Your task to perform on an android device: What's the weather going to be tomorrow? Image 0: 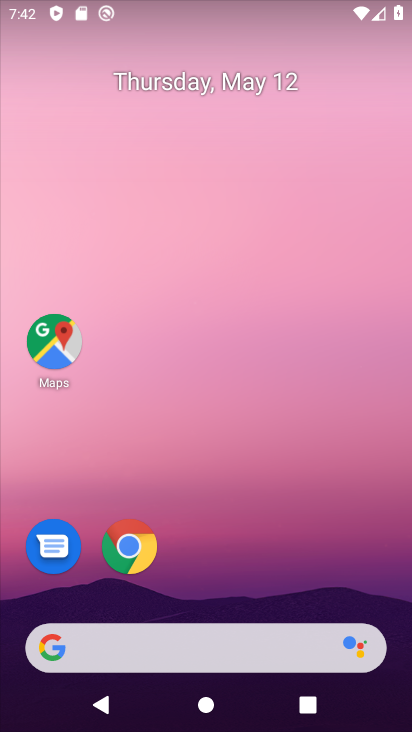
Step 0: drag from (200, 574) to (255, 89)
Your task to perform on an android device: What's the weather going to be tomorrow? Image 1: 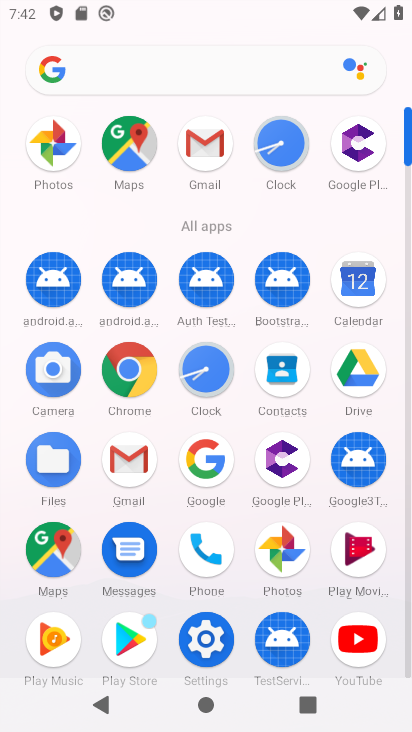
Step 1: click (133, 65)
Your task to perform on an android device: What's the weather going to be tomorrow? Image 2: 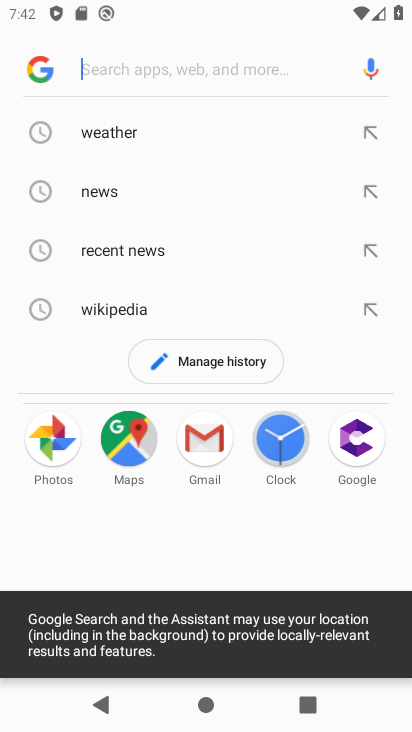
Step 2: click (110, 136)
Your task to perform on an android device: What's the weather going to be tomorrow? Image 3: 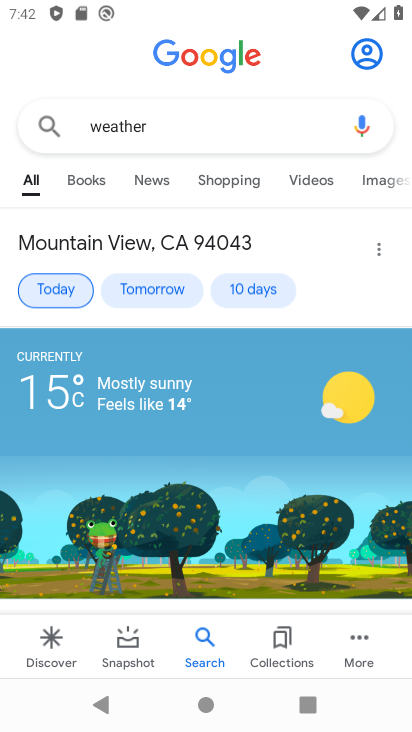
Step 3: click (163, 287)
Your task to perform on an android device: What's the weather going to be tomorrow? Image 4: 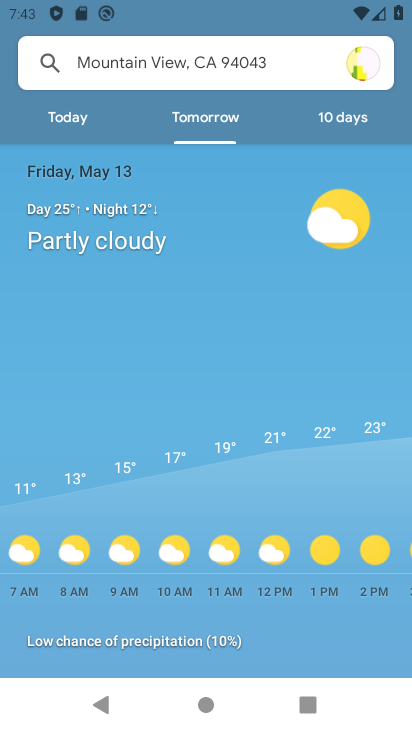
Step 4: task complete